Your task to perform on an android device: What's the weather going to be this weekend? Image 0: 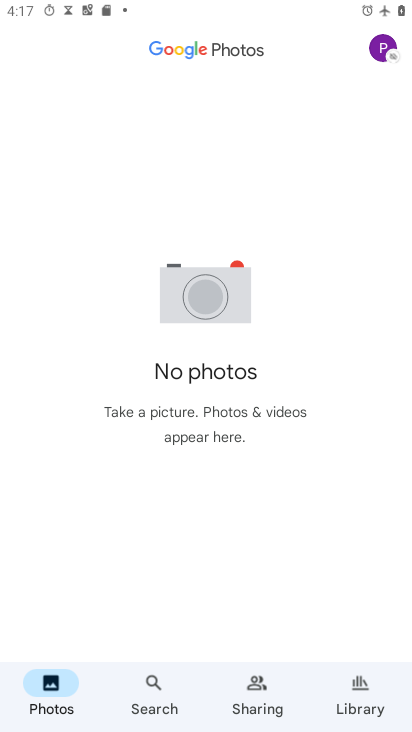
Step 0: press home button
Your task to perform on an android device: What's the weather going to be this weekend? Image 1: 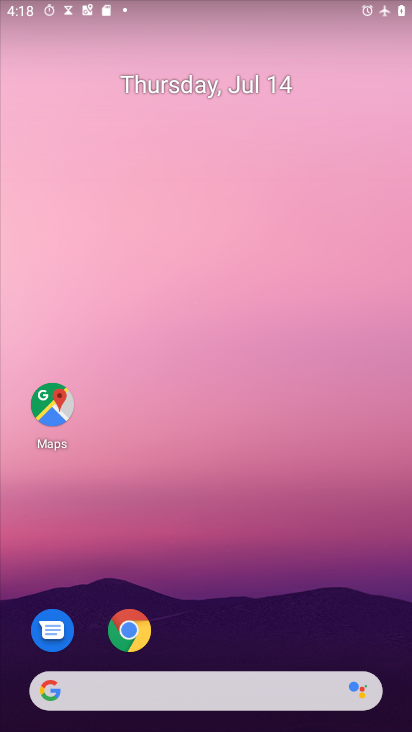
Step 1: drag from (212, 725) to (221, 158)
Your task to perform on an android device: What's the weather going to be this weekend? Image 2: 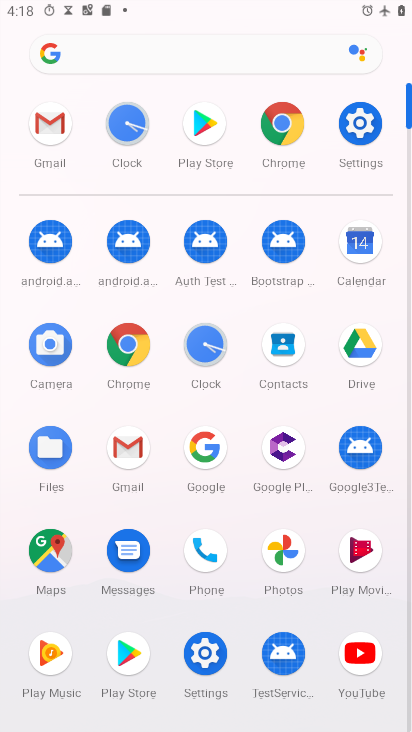
Step 2: click (190, 447)
Your task to perform on an android device: What's the weather going to be this weekend? Image 3: 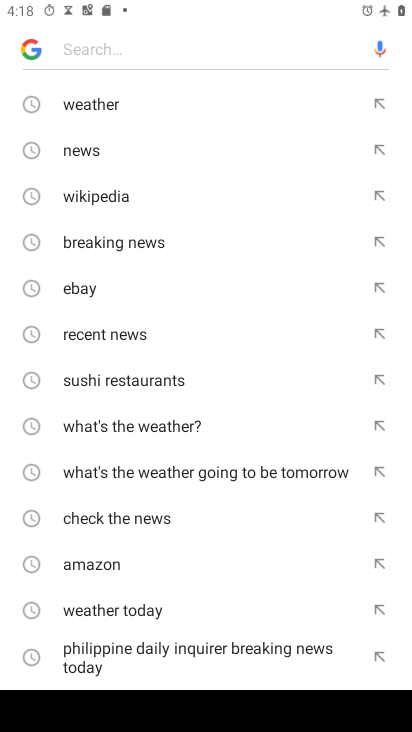
Step 3: click (92, 101)
Your task to perform on an android device: What's the weather going to be this weekend? Image 4: 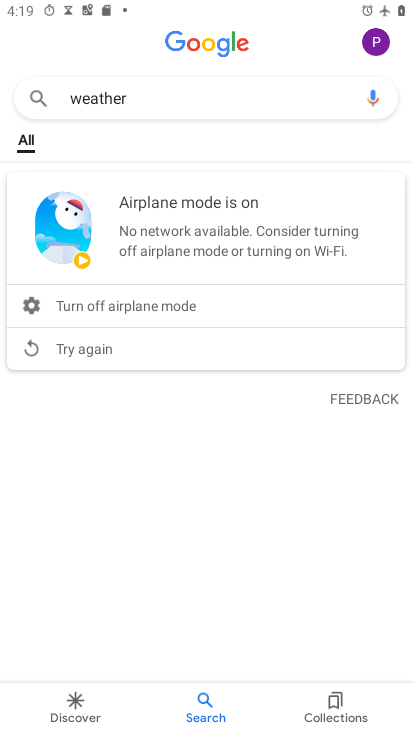
Step 4: task complete